Your task to perform on an android device: turn off translation in the chrome app Image 0: 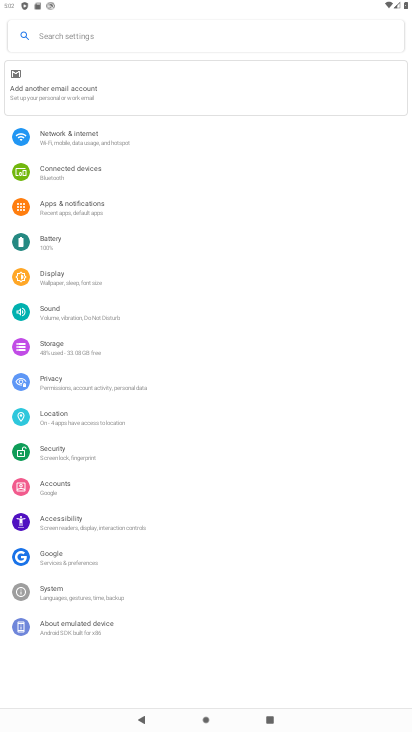
Step 0: press home button
Your task to perform on an android device: turn off translation in the chrome app Image 1: 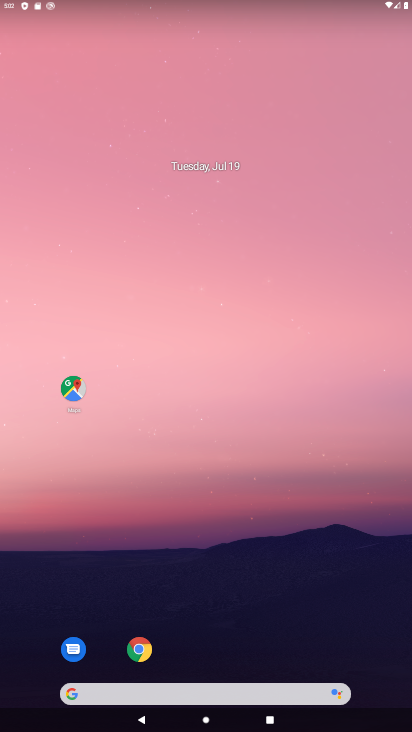
Step 1: drag from (264, 602) to (255, 60)
Your task to perform on an android device: turn off translation in the chrome app Image 2: 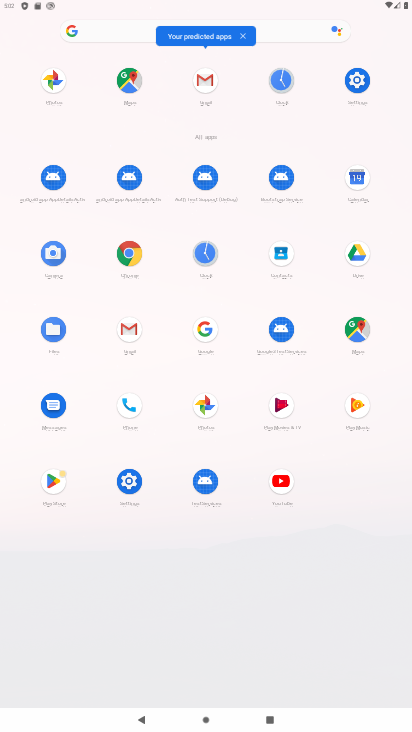
Step 2: click (130, 255)
Your task to perform on an android device: turn off translation in the chrome app Image 3: 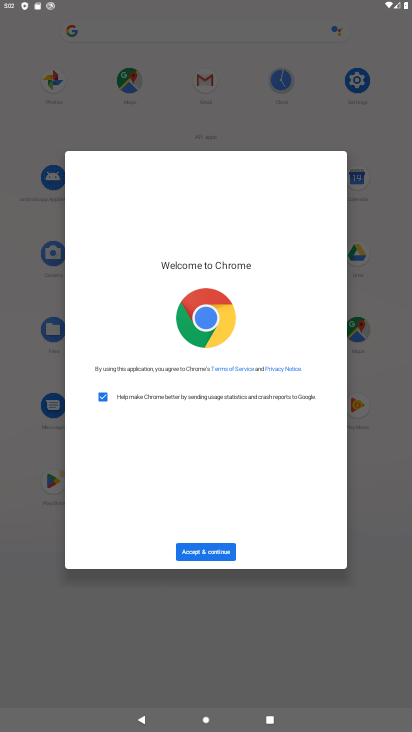
Step 3: click (225, 559)
Your task to perform on an android device: turn off translation in the chrome app Image 4: 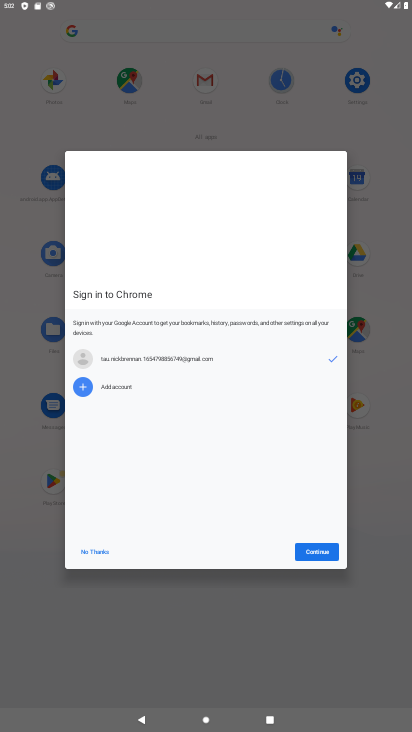
Step 4: click (313, 552)
Your task to perform on an android device: turn off translation in the chrome app Image 5: 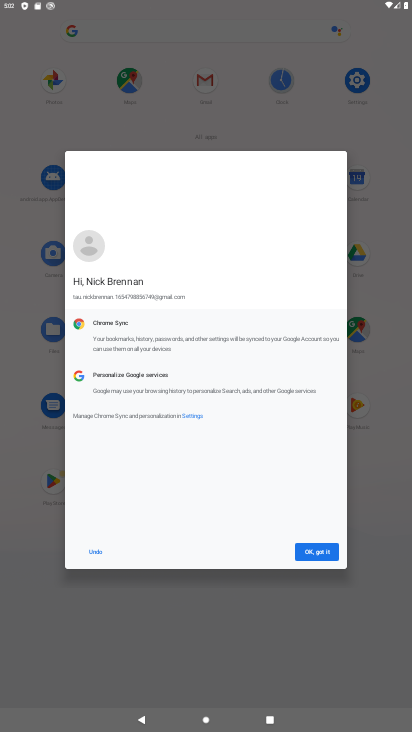
Step 5: click (313, 552)
Your task to perform on an android device: turn off translation in the chrome app Image 6: 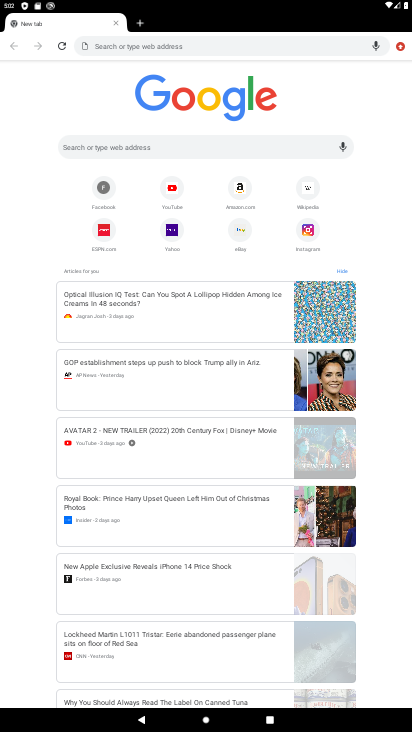
Step 6: drag from (396, 42) to (310, 239)
Your task to perform on an android device: turn off translation in the chrome app Image 7: 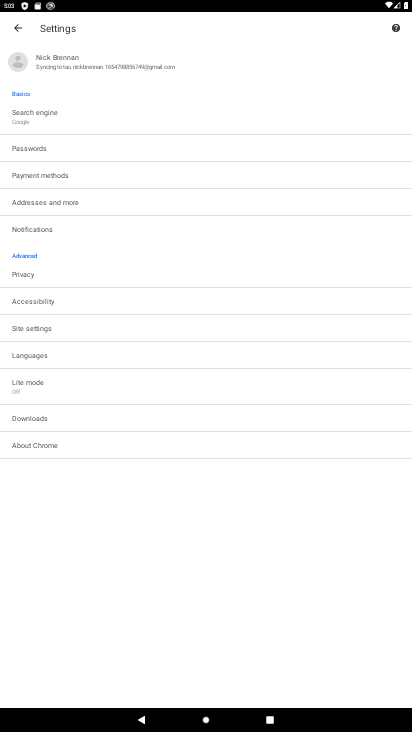
Step 7: click (40, 357)
Your task to perform on an android device: turn off translation in the chrome app Image 8: 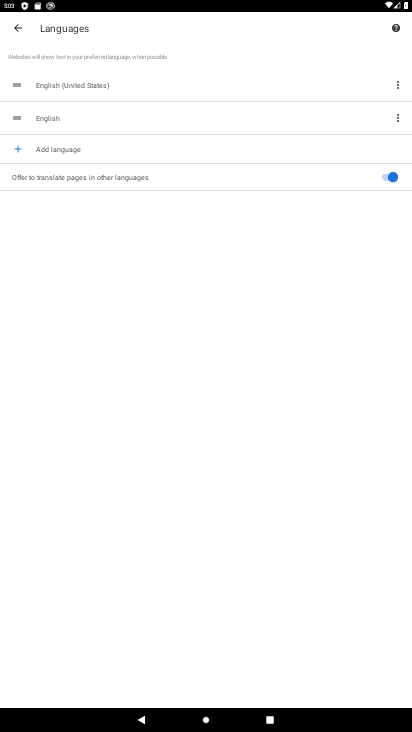
Step 8: click (381, 178)
Your task to perform on an android device: turn off translation in the chrome app Image 9: 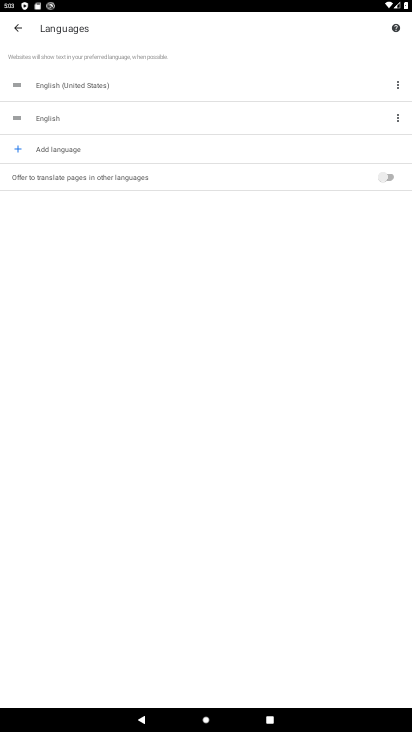
Step 9: task complete